Your task to perform on an android device: open app "Etsy: Buy & Sell Unique Items" (install if not already installed), go to login, and select forgot password Image 0: 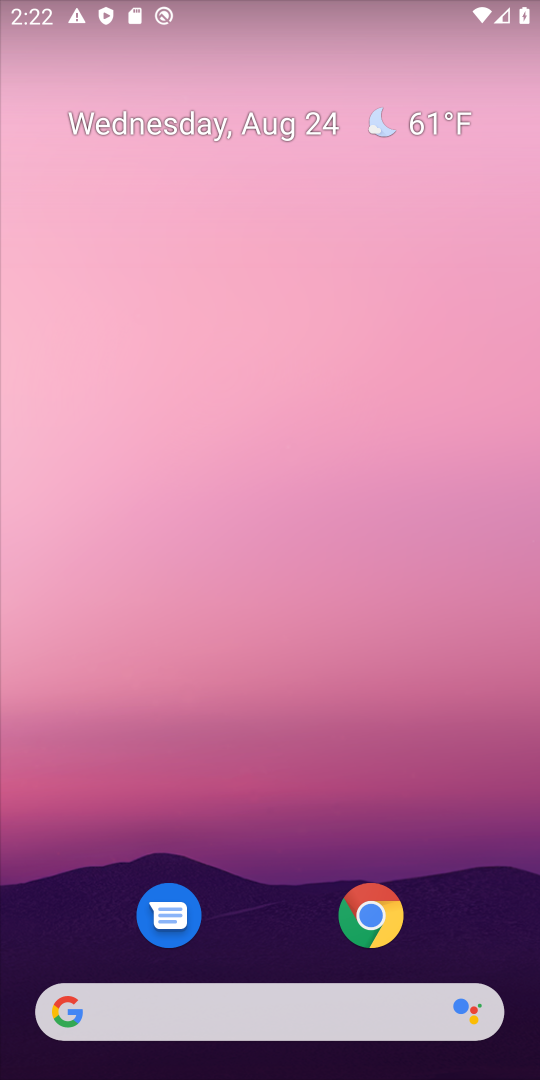
Step 0: drag from (255, 853) to (355, 178)
Your task to perform on an android device: open app "Etsy: Buy & Sell Unique Items" (install if not already installed), go to login, and select forgot password Image 1: 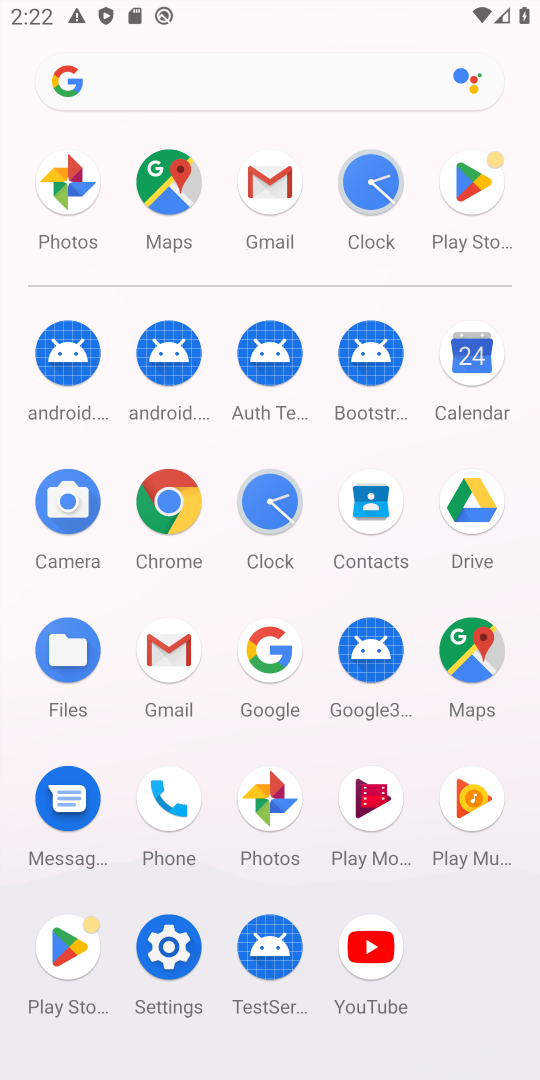
Step 1: click (461, 193)
Your task to perform on an android device: open app "Etsy: Buy & Sell Unique Items" (install if not already installed), go to login, and select forgot password Image 2: 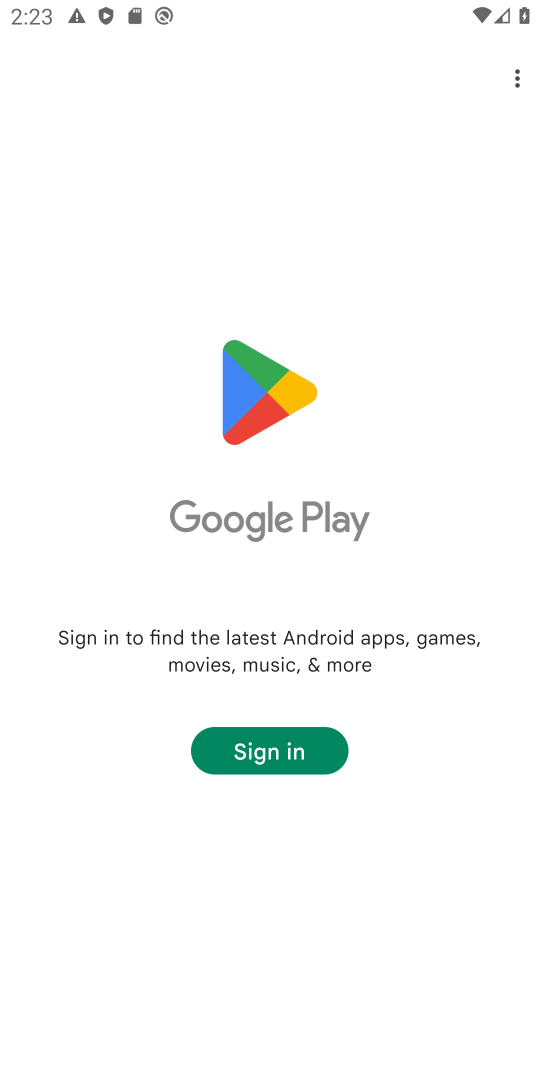
Step 2: task complete